Your task to perform on an android device: Open accessibility settings Image 0: 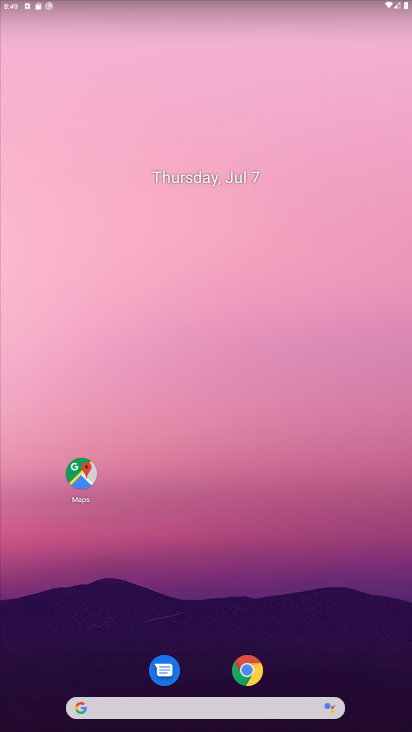
Step 0: drag from (81, 443) to (249, 123)
Your task to perform on an android device: Open accessibility settings Image 1: 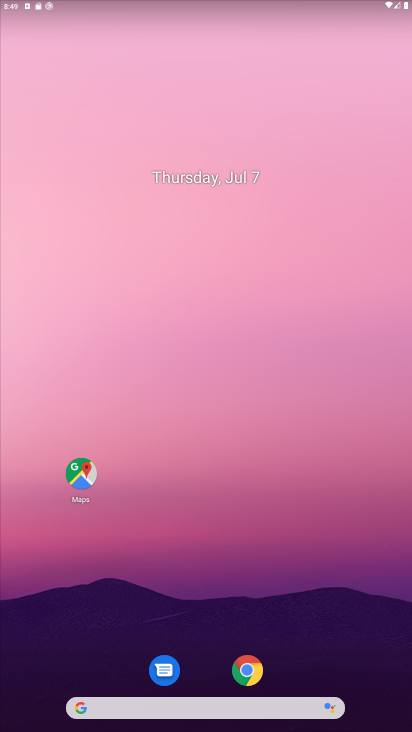
Step 1: drag from (68, 478) to (254, 58)
Your task to perform on an android device: Open accessibility settings Image 2: 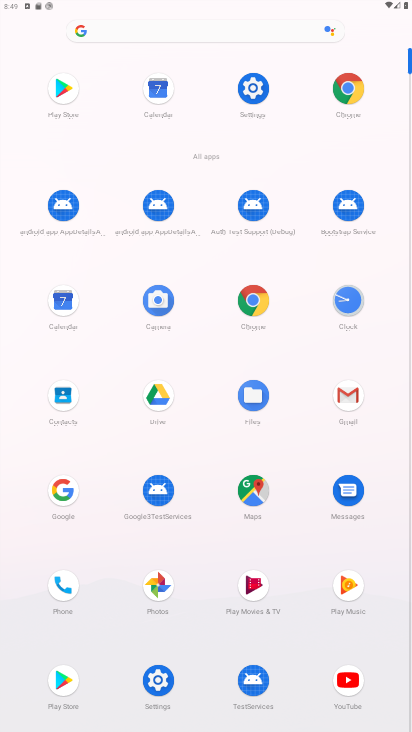
Step 2: click (258, 91)
Your task to perform on an android device: Open accessibility settings Image 3: 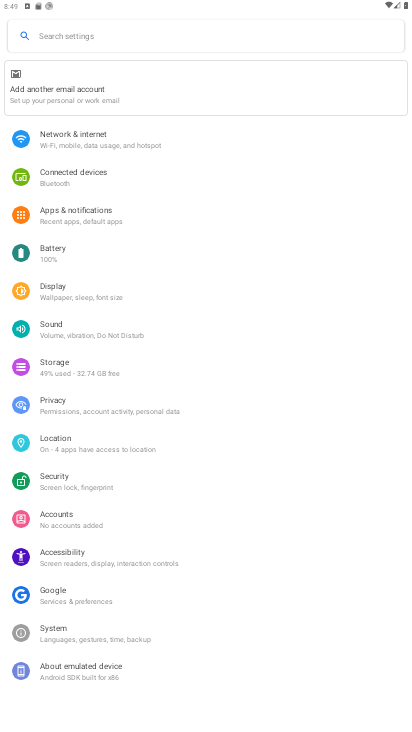
Step 3: click (68, 548)
Your task to perform on an android device: Open accessibility settings Image 4: 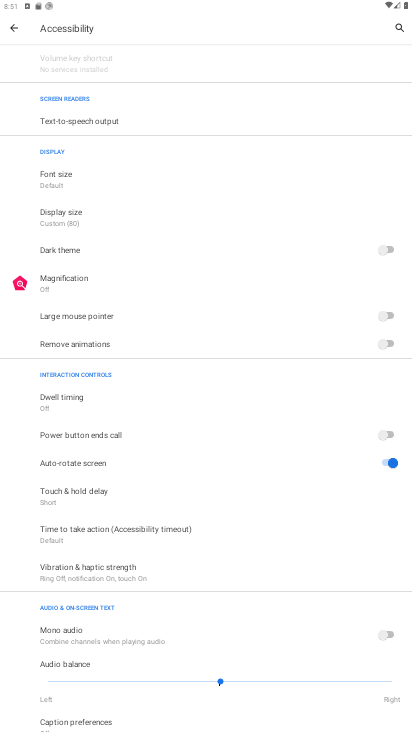
Step 4: task complete